Your task to perform on an android device: open app "McDonald's" (install if not already installed) and enter user name: "copes@yahoo.com" and password: "Rhenish" Image 0: 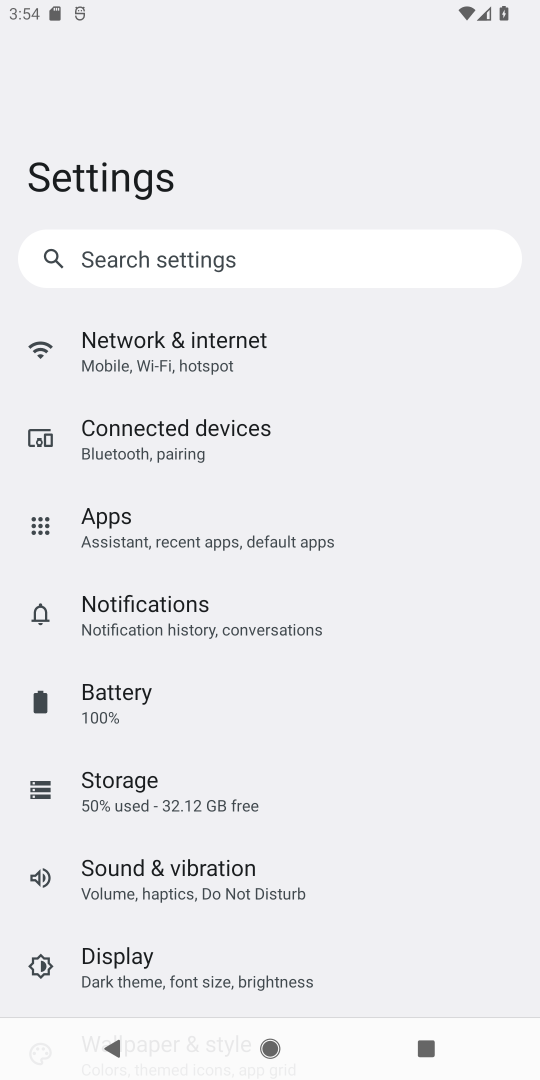
Step 0: press home button
Your task to perform on an android device: open app "McDonald's" (install if not already installed) and enter user name: "copes@yahoo.com" and password: "Rhenish" Image 1: 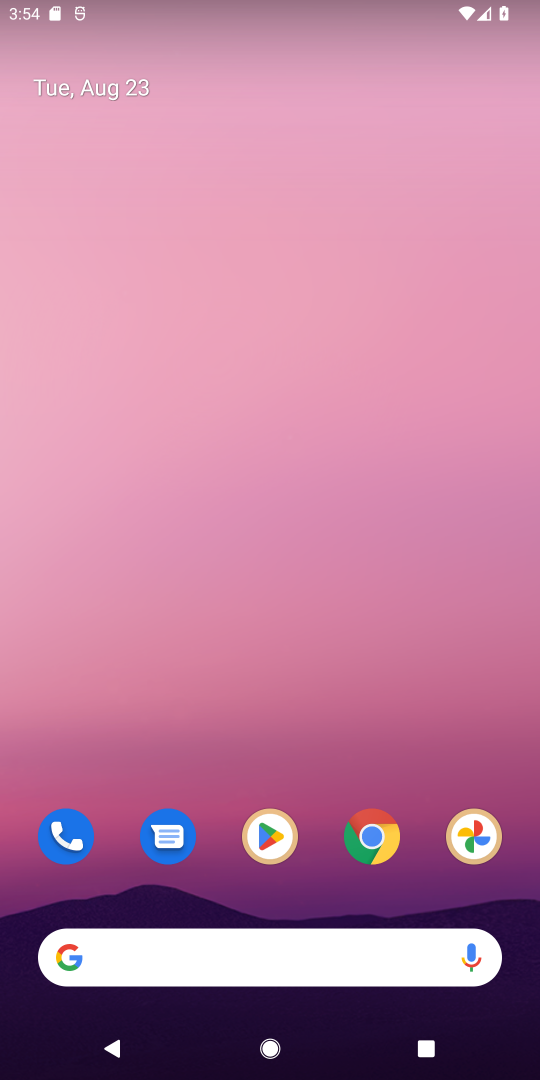
Step 1: click (269, 832)
Your task to perform on an android device: open app "McDonald's" (install if not already installed) and enter user name: "copes@yahoo.com" and password: "Rhenish" Image 2: 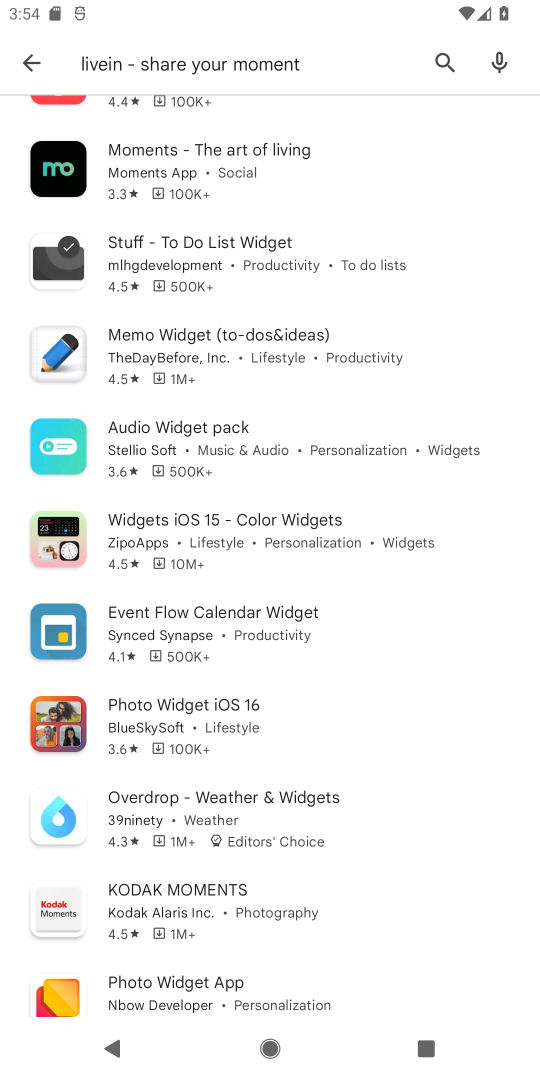
Step 2: click (437, 53)
Your task to perform on an android device: open app "McDonald's" (install if not already installed) and enter user name: "copes@yahoo.com" and password: "Rhenish" Image 3: 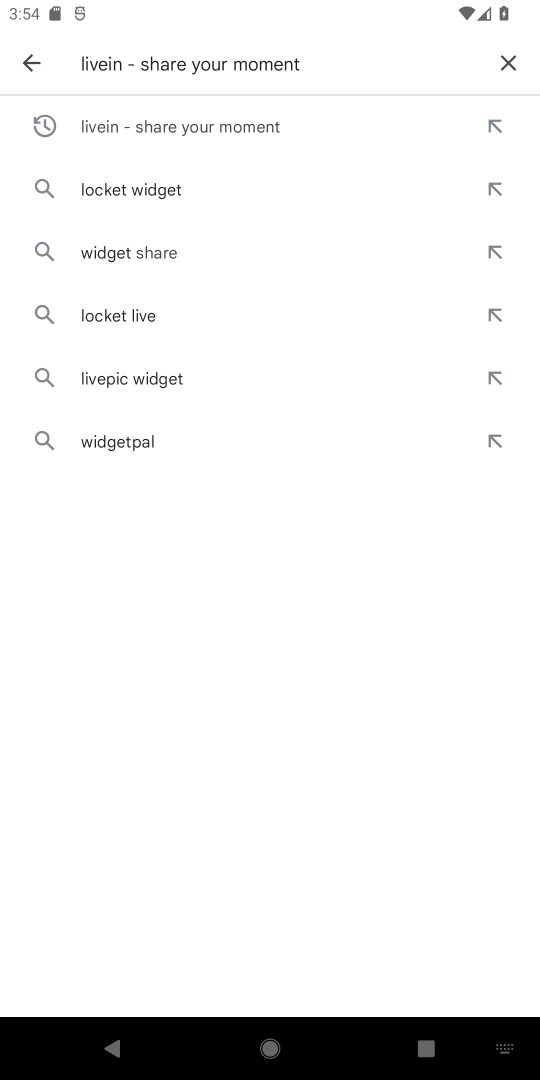
Step 3: click (506, 58)
Your task to perform on an android device: open app "McDonald's" (install if not already installed) and enter user name: "copes@yahoo.com" and password: "Rhenish" Image 4: 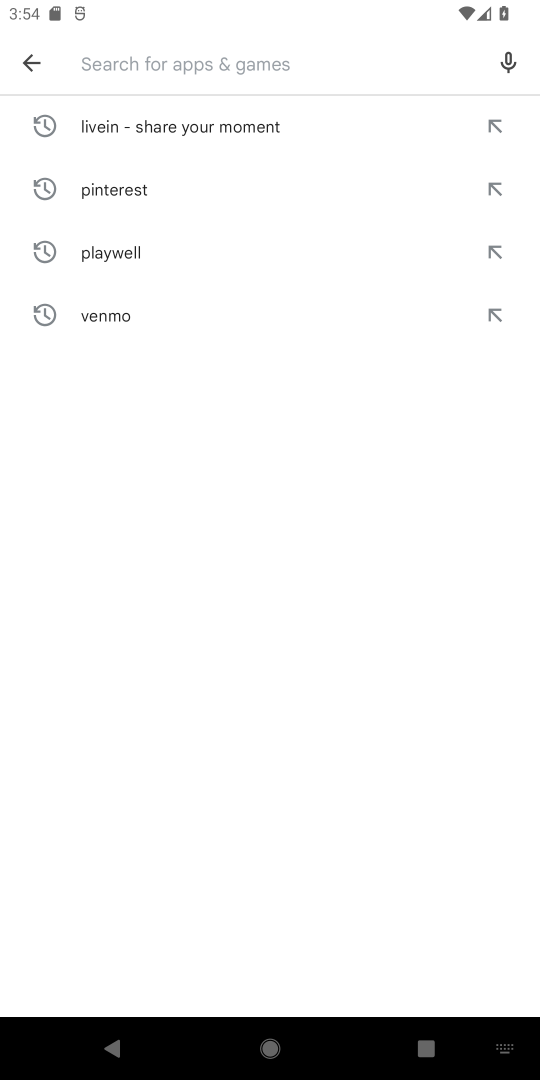
Step 4: type "mcdonalds"
Your task to perform on an android device: open app "McDonald's" (install if not already installed) and enter user name: "copes@yahoo.com" and password: "Rhenish" Image 5: 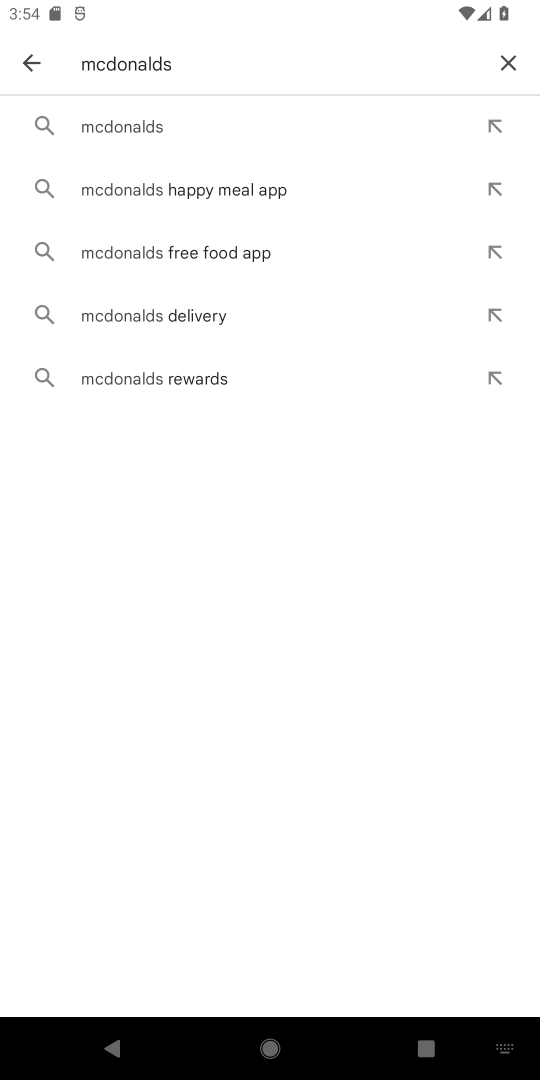
Step 5: click (133, 121)
Your task to perform on an android device: open app "McDonald's" (install if not already installed) and enter user name: "copes@yahoo.com" and password: "Rhenish" Image 6: 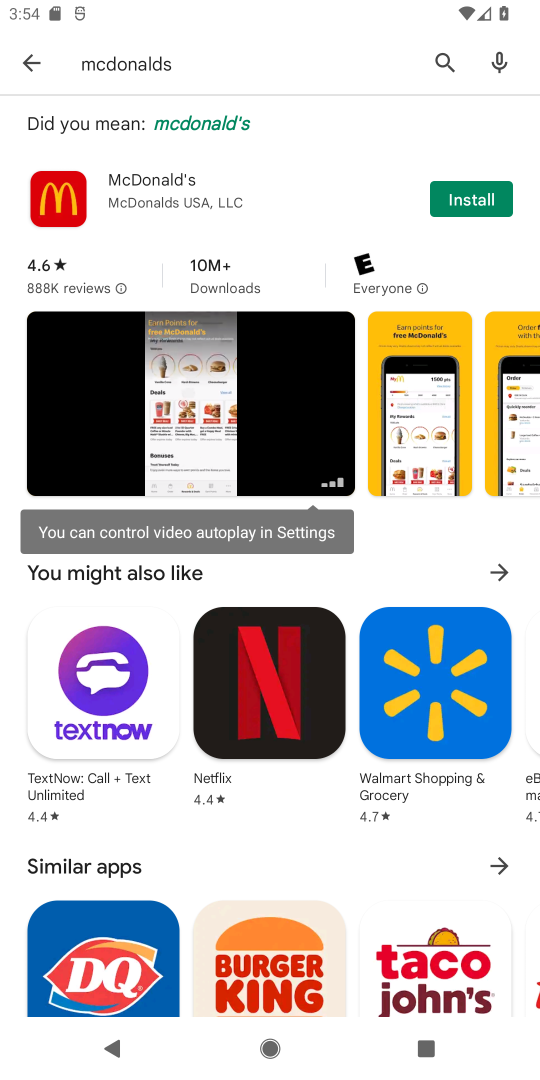
Step 6: click (469, 201)
Your task to perform on an android device: open app "McDonald's" (install if not already installed) and enter user name: "copes@yahoo.com" and password: "Rhenish" Image 7: 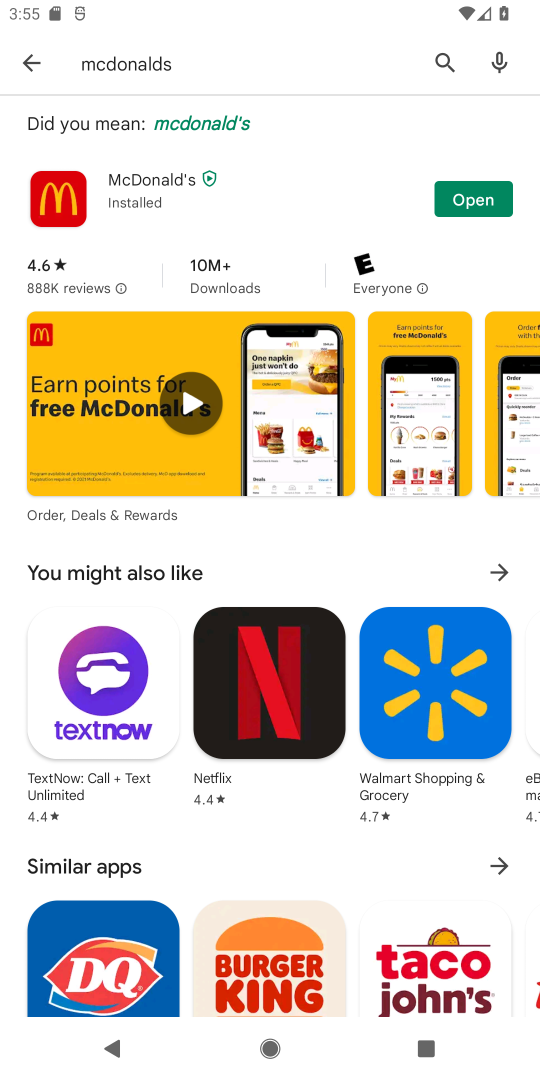
Step 7: click (480, 196)
Your task to perform on an android device: open app "McDonald's" (install if not already installed) and enter user name: "copes@yahoo.com" and password: "Rhenish" Image 8: 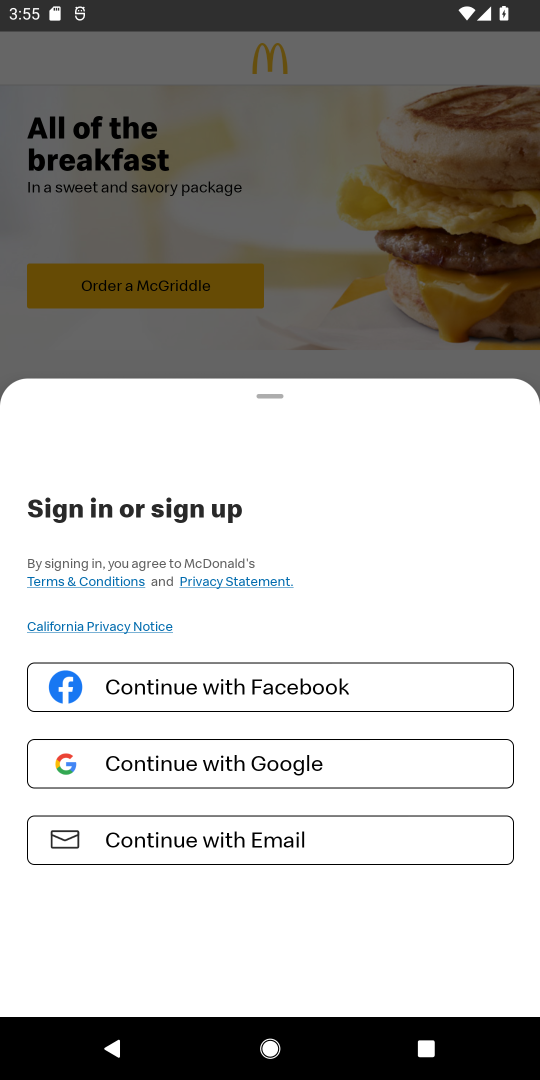
Step 8: click (229, 842)
Your task to perform on an android device: open app "McDonald's" (install if not already installed) and enter user name: "copes@yahoo.com" and password: "Rhenish" Image 9: 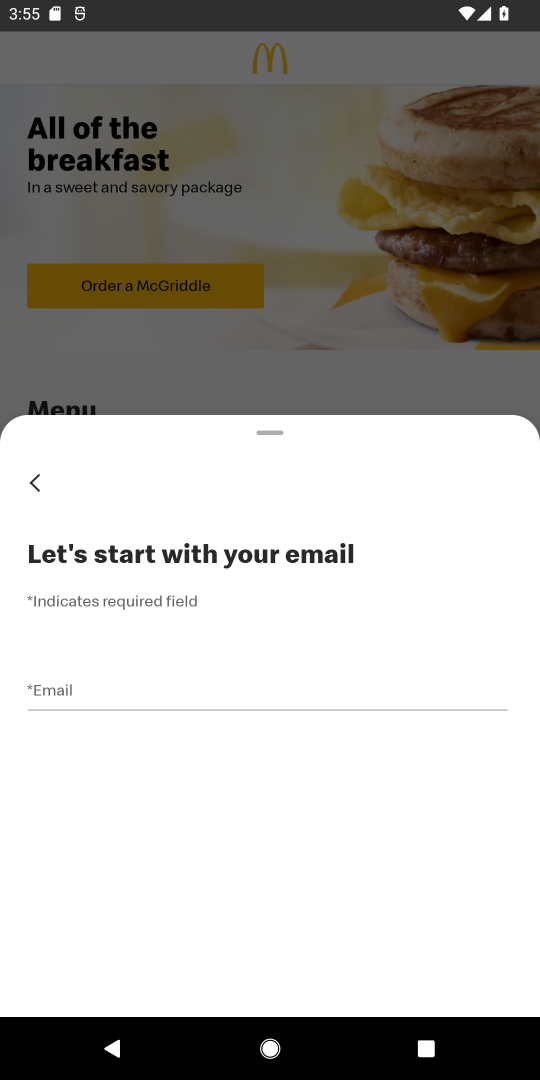
Step 9: click (150, 699)
Your task to perform on an android device: open app "McDonald's" (install if not already installed) and enter user name: "copes@yahoo.com" and password: "Rhenish" Image 10: 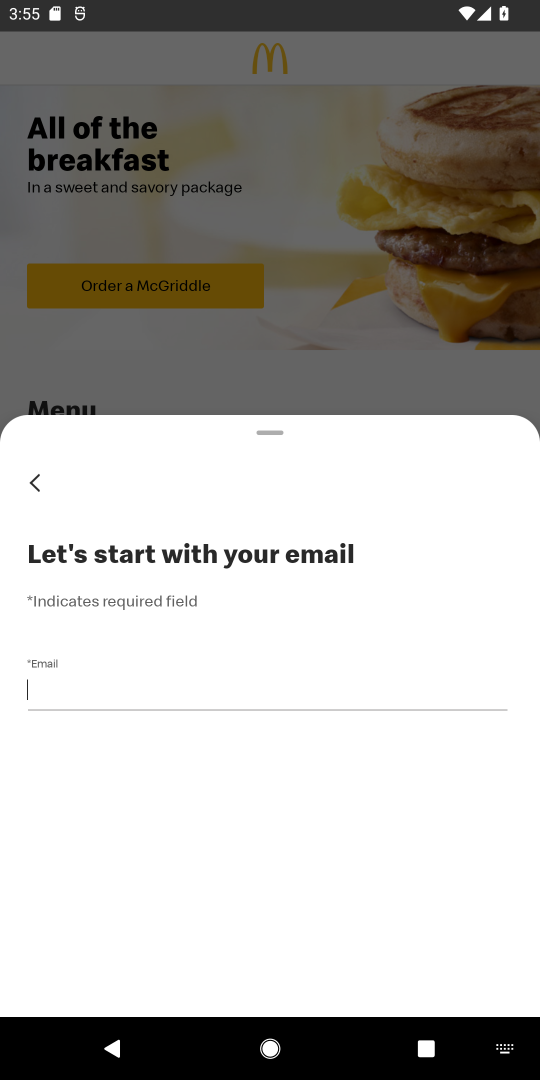
Step 10: type "copes@yahoo.com"
Your task to perform on an android device: open app "McDonald's" (install if not already installed) and enter user name: "copes@yahoo.com" and password: "Rhenish" Image 11: 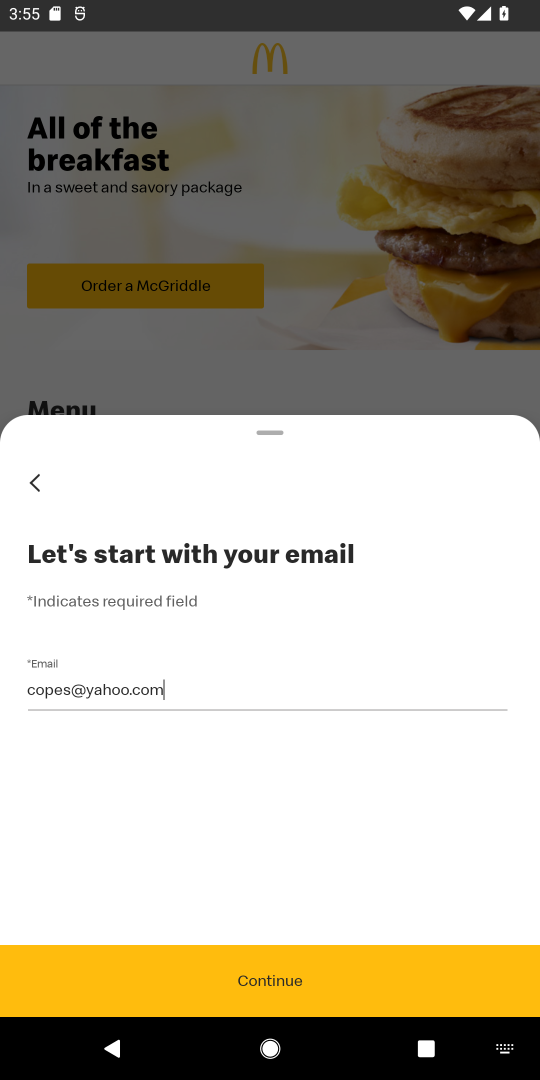
Step 11: click (257, 984)
Your task to perform on an android device: open app "McDonald's" (install if not already installed) and enter user name: "copes@yahoo.com" and password: "Rhenish" Image 12: 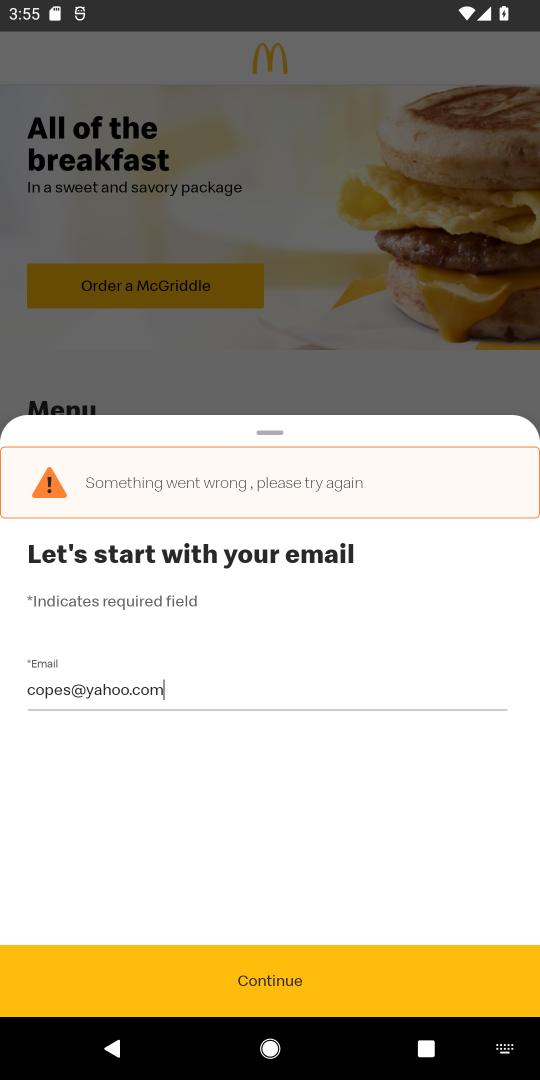
Step 12: click (265, 989)
Your task to perform on an android device: open app "McDonald's" (install if not already installed) and enter user name: "copes@yahoo.com" and password: "Rhenish" Image 13: 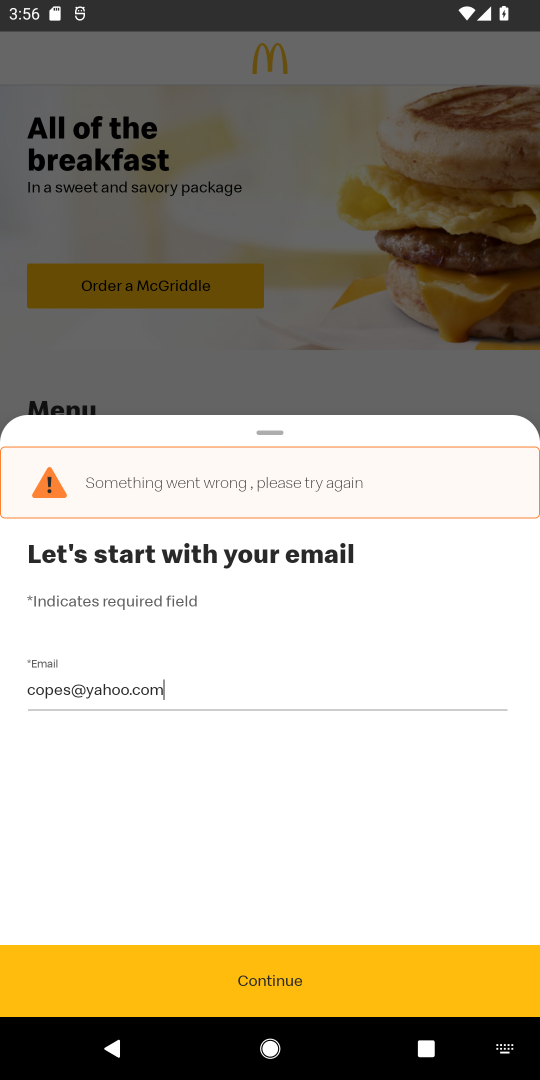
Step 13: click (265, 984)
Your task to perform on an android device: open app "McDonald's" (install if not already installed) and enter user name: "copes@yahoo.com" and password: "Rhenish" Image 14: 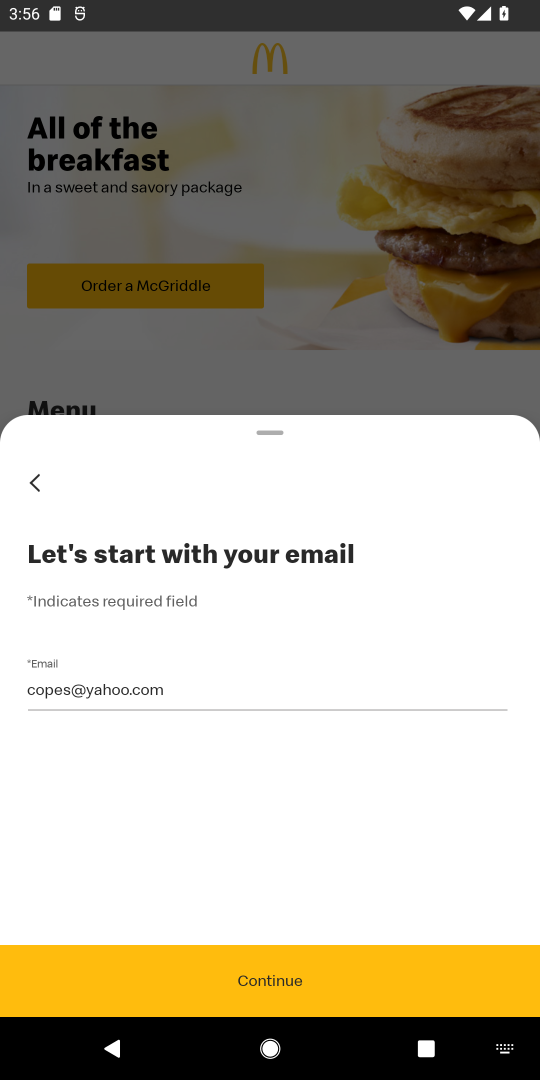
Step 14: task complete